Your task to perform on an android device: toggle priority inbox in the gmail app Image 0: 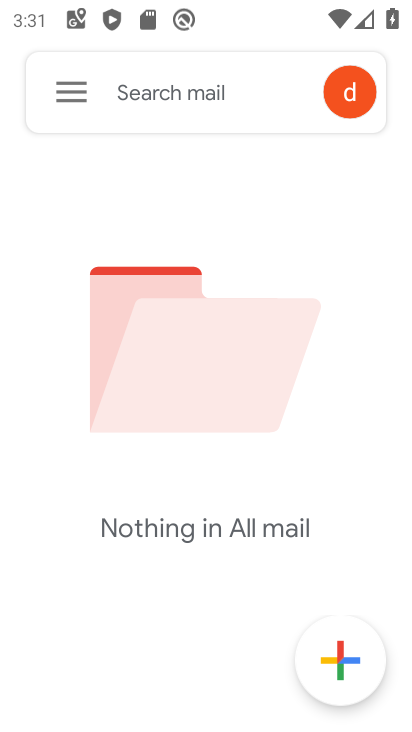
Step 0: press home button
Your task to perform on an android device: toggle priority inbox in the gmail app Image 1: 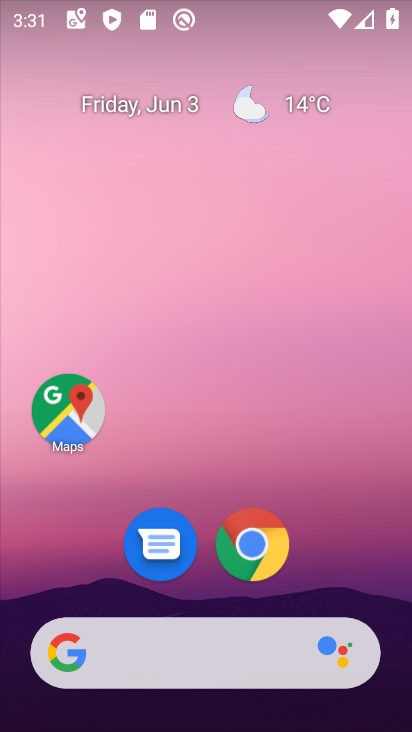
Step 1: drag from (392, 628) to (350, 28)
Your task to perform on an android device: toggle priority inbox in the gmail app Image 2: 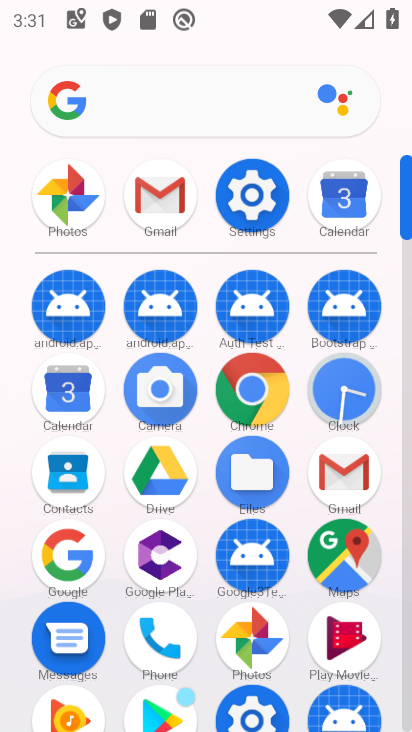
Step 2: click (402, 656)
Your task to perform on an android device: toggle priority inbox in the gmail app Image 3: 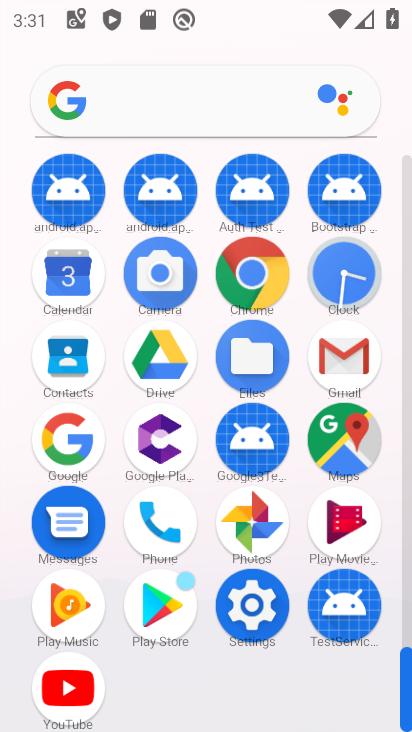
Step 3: click (339, 356)
Your task to perform on an android device: toggle priority inbox in the gmail app Image 4: 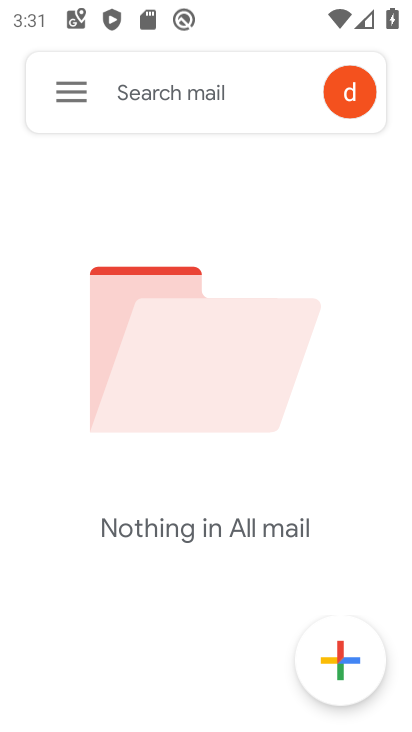
Step 4: click (68, 79)
Your task to perform on an android device: toggle priority inbox in the gmail app Image 5: 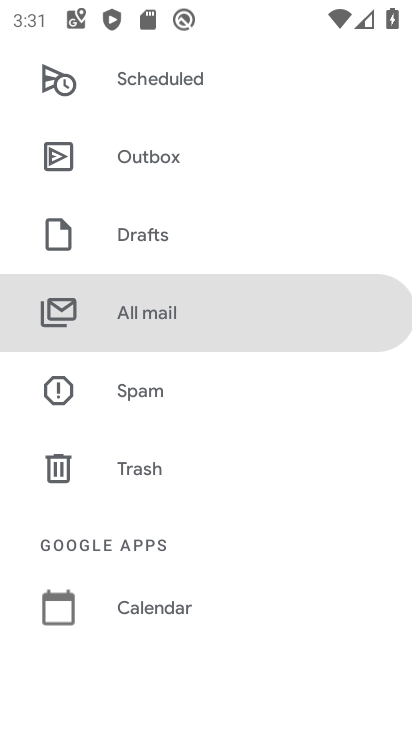
Step 5: drag from (237, 626) to (270, 134)
Your task to perform on an android device: toggle priority inbox in the gmail app Image 6: 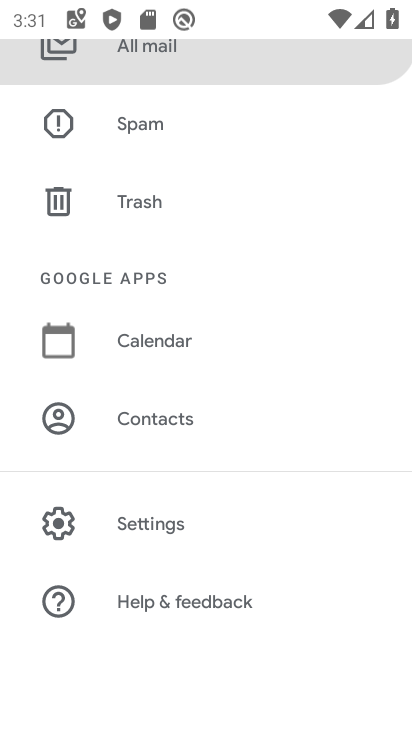
Step 6: click (144, 511)
Your task to perform on an android device: toggle priority inbox in the gmail app Image 7: 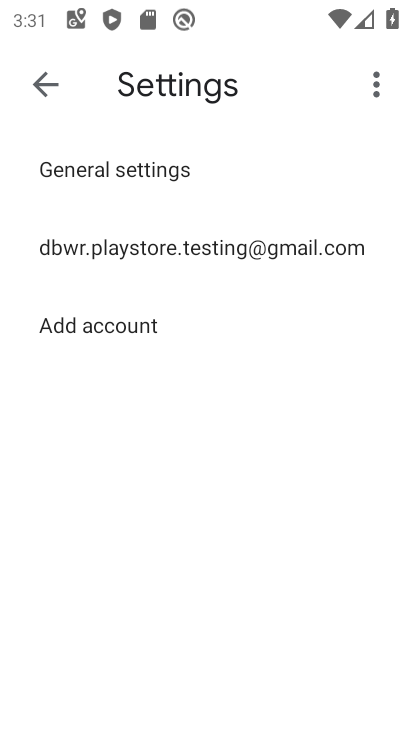
Step 7: click (176, 236)
Your task to perform on an android device: toggle priority inbox in the gmail app Image 8: 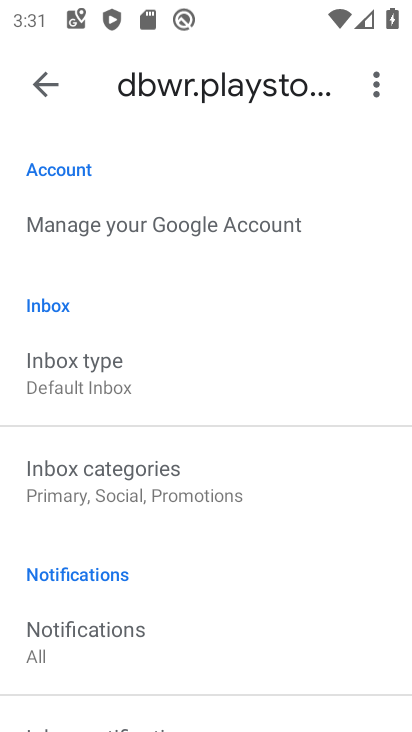
Step 8: click (100, 383)
Your task to perform on an android device: toggle priority inbox in the gmail app Image 9: 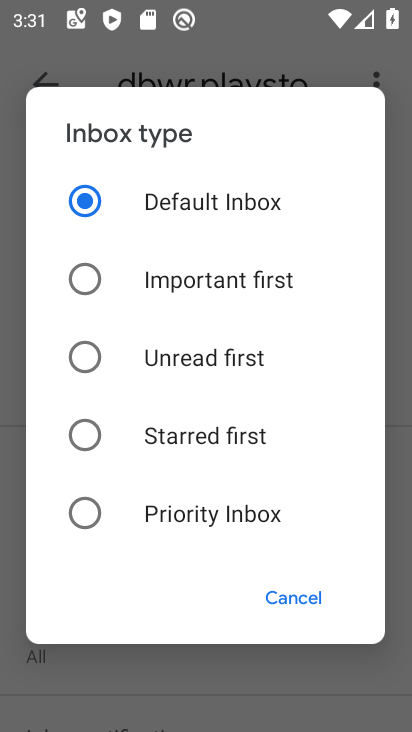
Step 9: click (89, 512)
Your task to perform on an android device: toggle priority inbox in the gmail app Image 10: 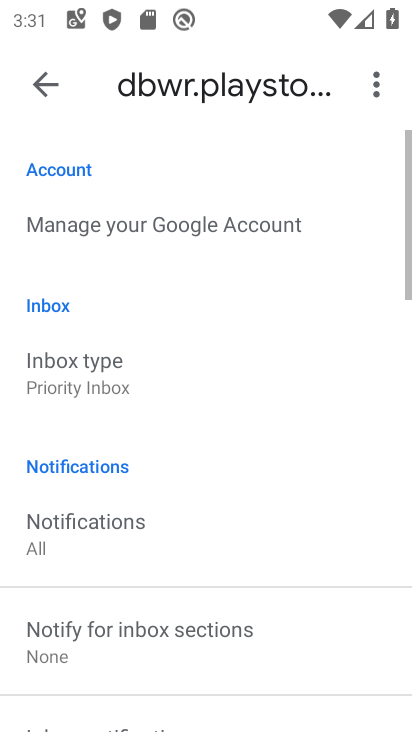
Step 10: task complete